Your task to perform on an android device: empty trash in the gmail app Image 0: 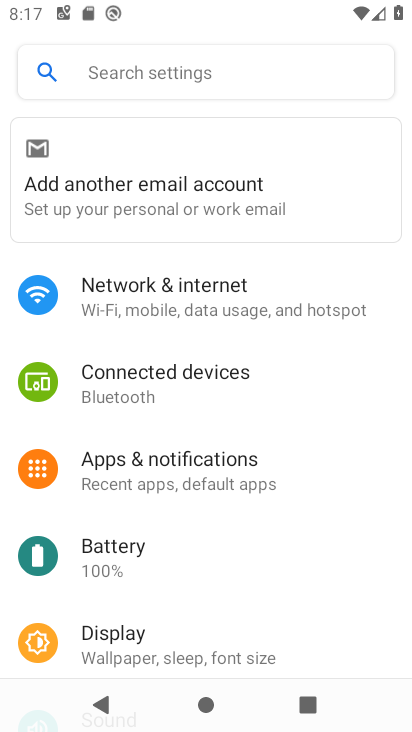
Step 0: press home button
Your task to perform on an android device: empty trash in the gmail app Image 1: 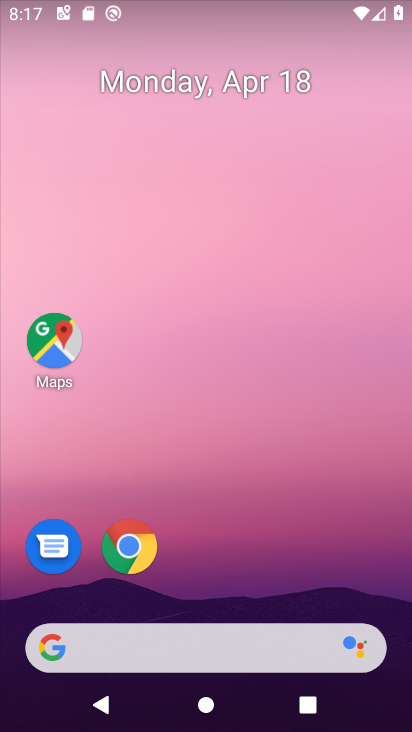
Step 1: drag from (350, 586) to (241, 181)
Your task to perform on an android device: empty trash in the gmail app Image 2: 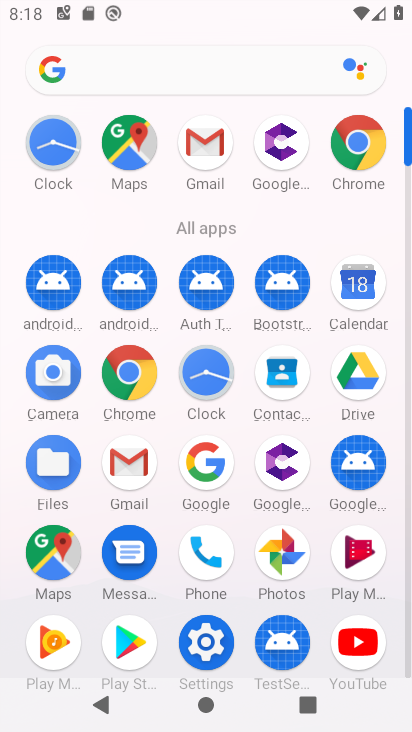
Step 2: click (212, 166)
Your task to perform on an android device: empty trash in the gmail app Image 3: 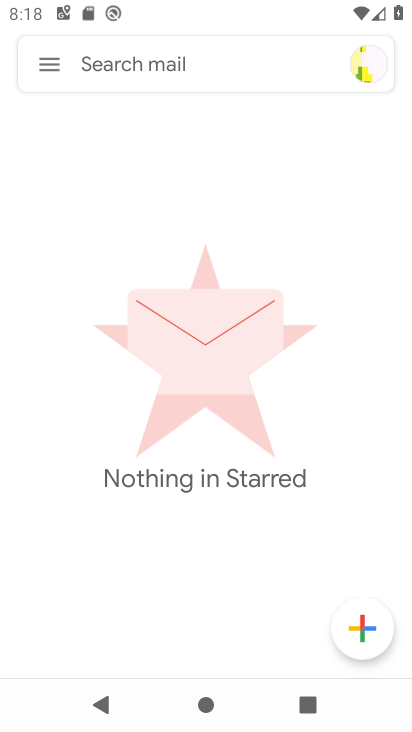
Step 3: click (49, 78)
Your task to perform on an android device: empty trash in the gmail app Image 4: 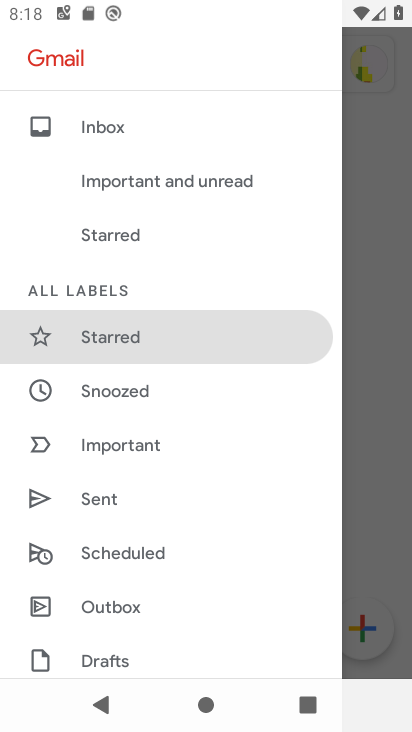
Step 4: drag from (253, 627) to (202, 175)
Your task to perform on an android device: empty trash in the gmail app Image 5: 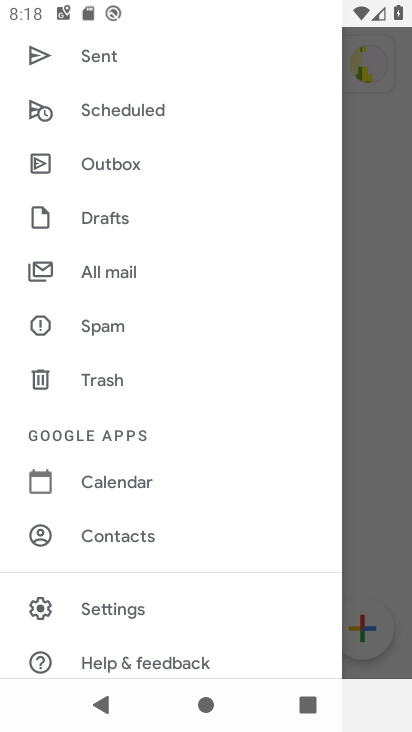
Step 5: click (211, 383)
Your task to perform on an android device: empty trash in the gmail app Image 6: 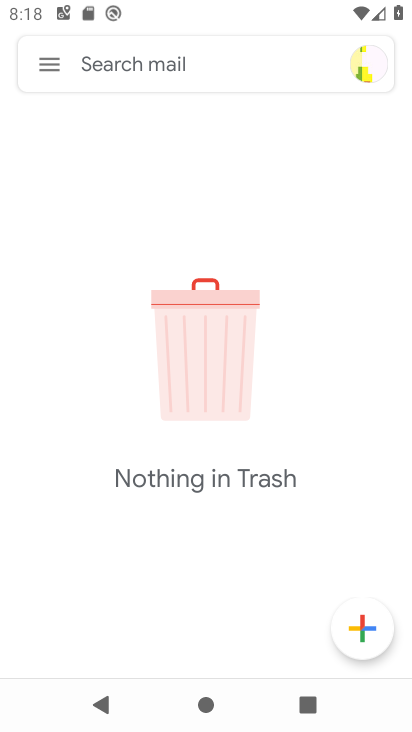
Step 6: click (57, 73)
Your task to perform on an android device: empty trash in the gmail app Image 7: 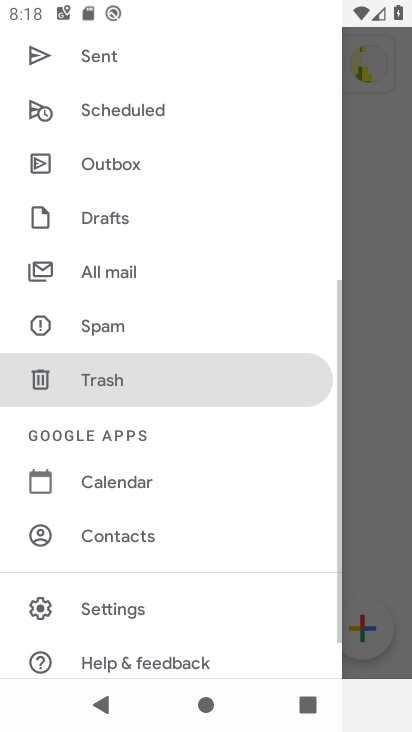
Step 7: click (298, 372)
Your task to perform on an android device: empty trash in the gmail app Image 8: 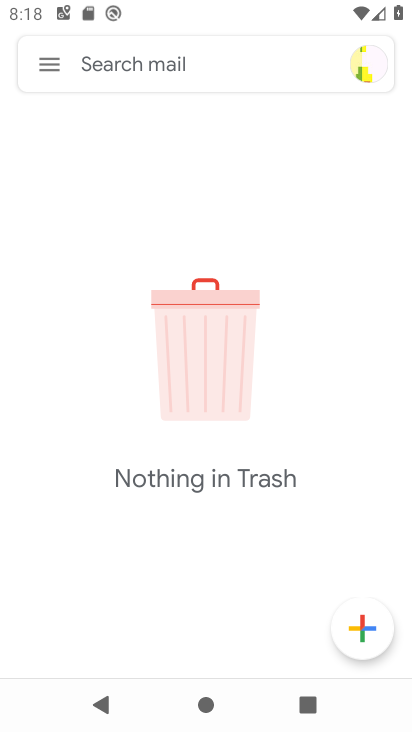
Step 8: task complete